Your task to perform on an android device: turn on priority inbox in the gmail app Image 0: 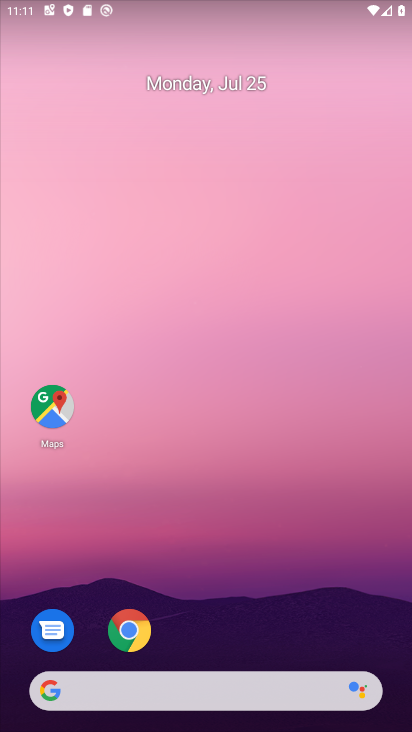
Step 0: press home button
Your task to perform on an android device: turn on priority inbox in the gmail app Image 1: 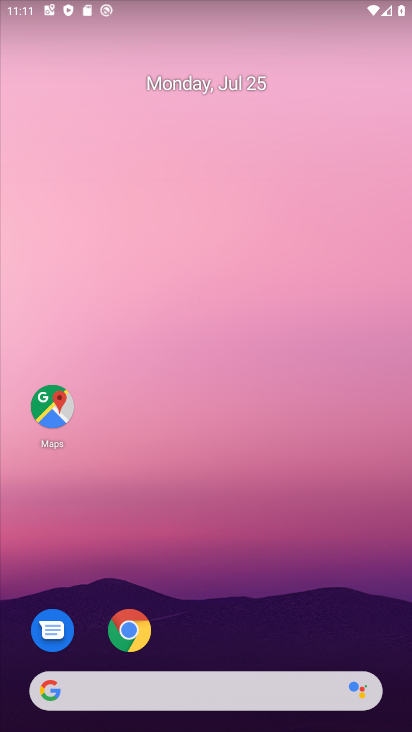
Step 1: drag from (361, 610) to (369, 134)
Your task to perform on an android device: turn on priority inbox in the gmail app Image 2: 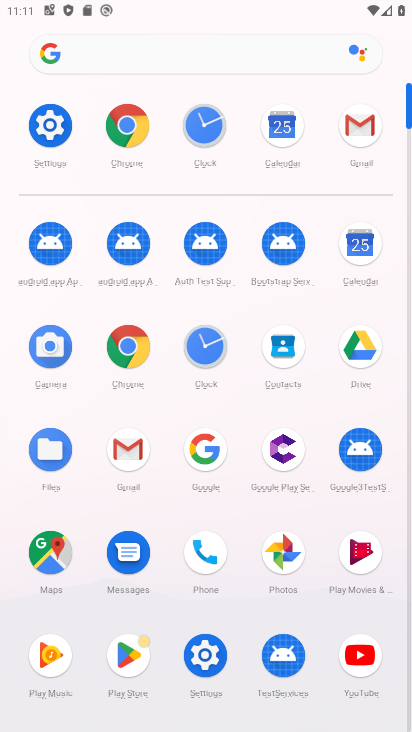
Step 2: click (360, 133)
Your task to perform on an android device: turn on priority inbox in the gmail app Image 3: 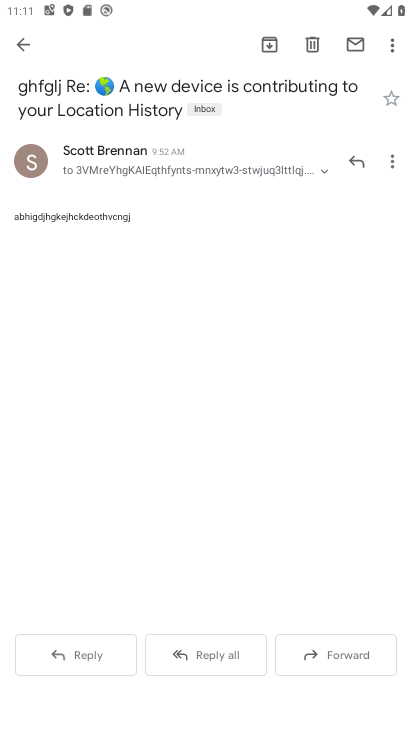
Step 3: press back button
Your task to perform on an android device: turn on priority inbox in the gmail app Image 4: 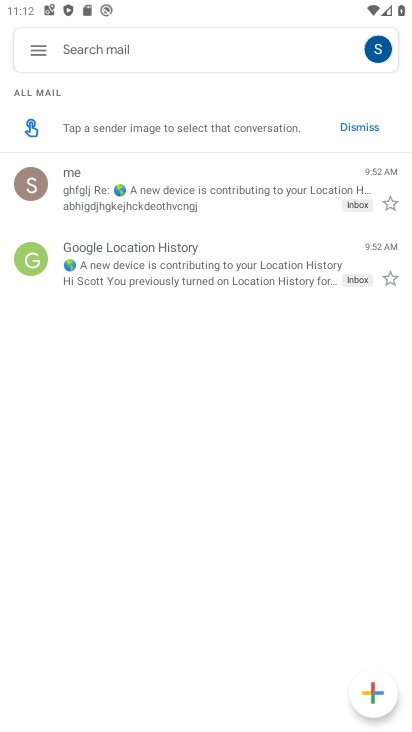
Step 4: click (34, 51)
Your task to perform on an android device: turn on priority inbox in the gmail app Image 5: 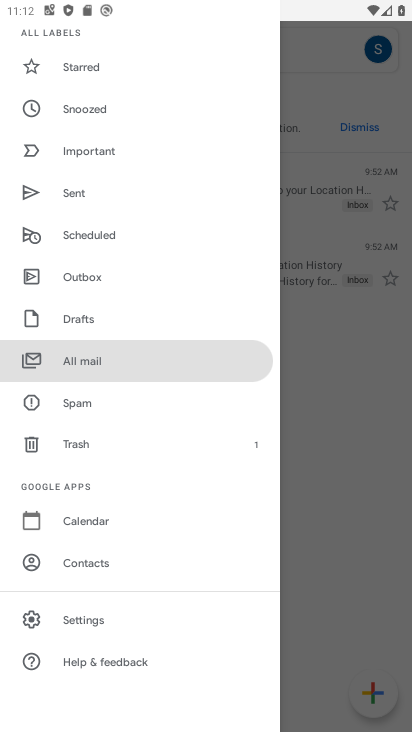
Step 5: click (109, 618)
Your task to perform on an android device: turn on priority inbox in the gmail app Image 6: 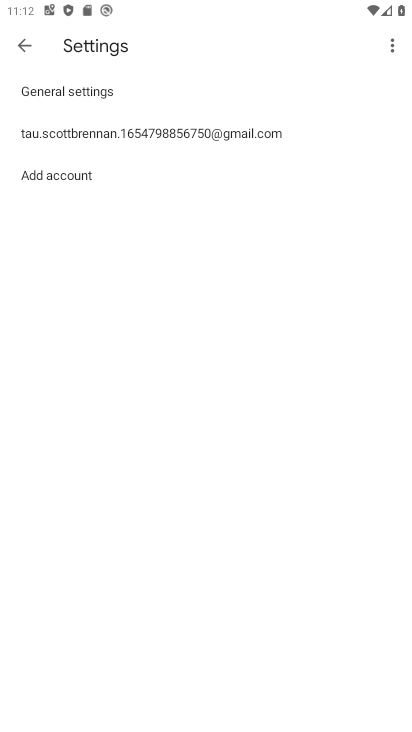
Step 6: click (167, 136)
Your task to perform on an android device: turn on priority inbox in the gmail app Image 7: 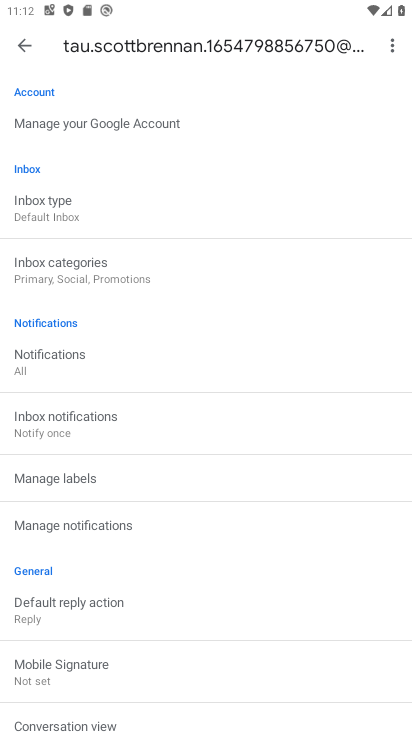
Step 7: drag from (320, 462) to (325, 362)
Your task to perform on an android device: turn on priority inbox in the gmail app Image 8: 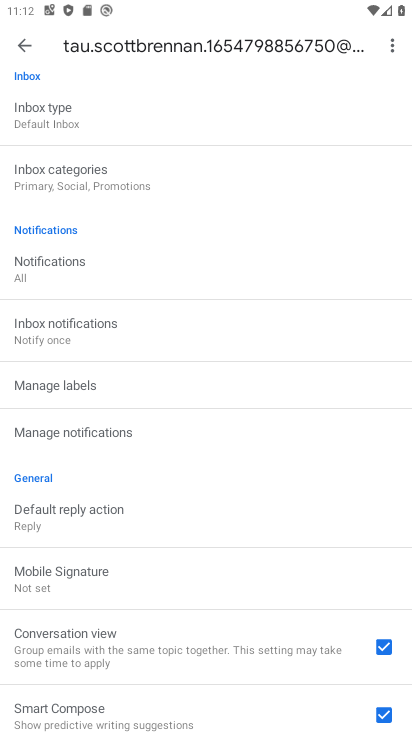
Step 8: drag from (301, 517) to (300, 418)
Your task to perform on an android device: turn on priority inbox in the gmail app Image 9: 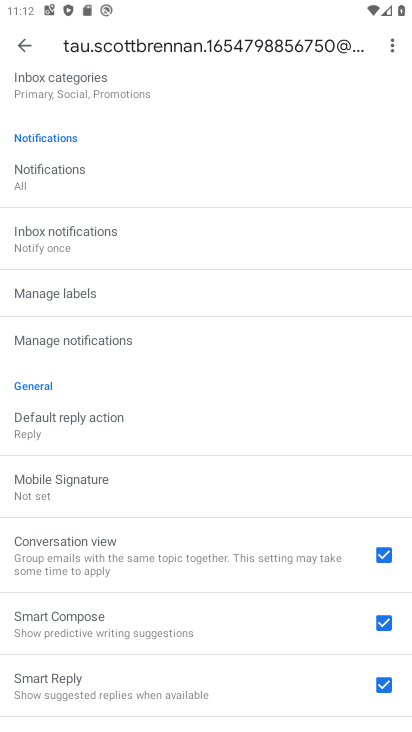
Step 9: drag from (284, 580) to (288, 475)
Your task to perform on an android device: turn on priority inbox in the gmail app Image 10: 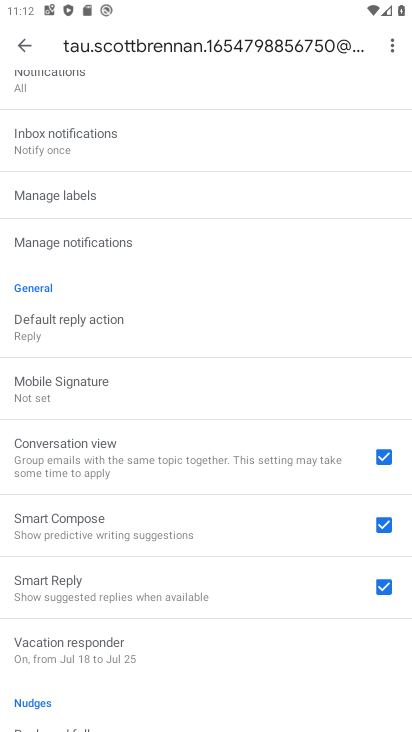
Step 10: drag from (281, 592) to (285, 480)
Your task to perform on an android device: turn on priority inbox in the gmail app Image 11: 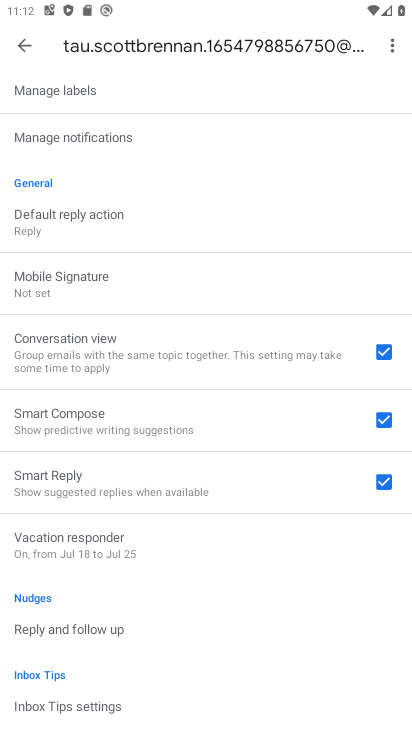
Step 11: drag from (279, 597) to (278, 471)
Your task to perform on an android device: turn on priority inbox in the gmail app Image 12: 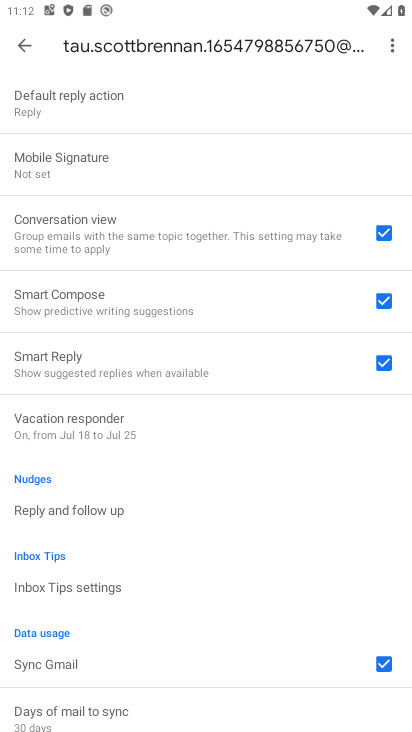
Step 12: drag from (250, 614) to (250, 434)
Your task to perform on an android device: turn on priority inbox in the gmail app Image 13: 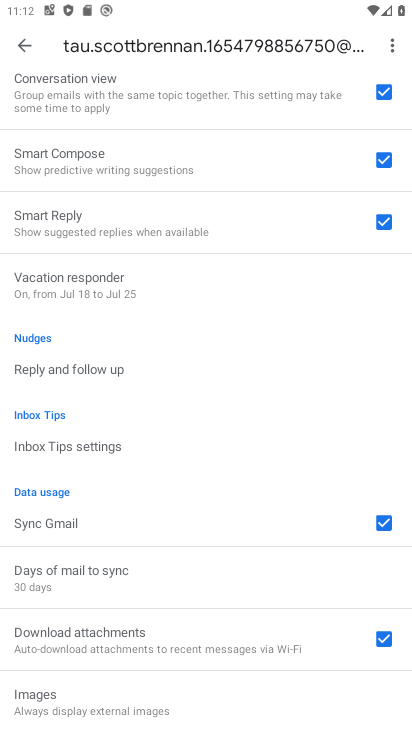
Step 13: drag from (265, 324) to (266, 422)
Your task to perform on an android device: turn on priority inbox in the gmail app Image 14: 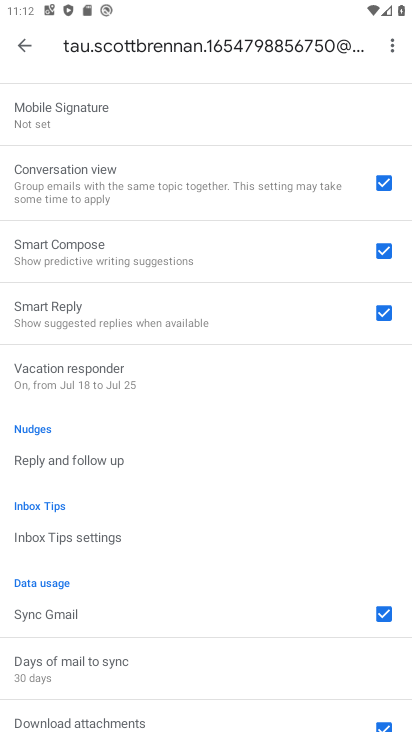
Step 14: drag from (277, 298) to (279, 397)
Your task to perform on an android device: turn on priority inbox in the gmail app Image 15: 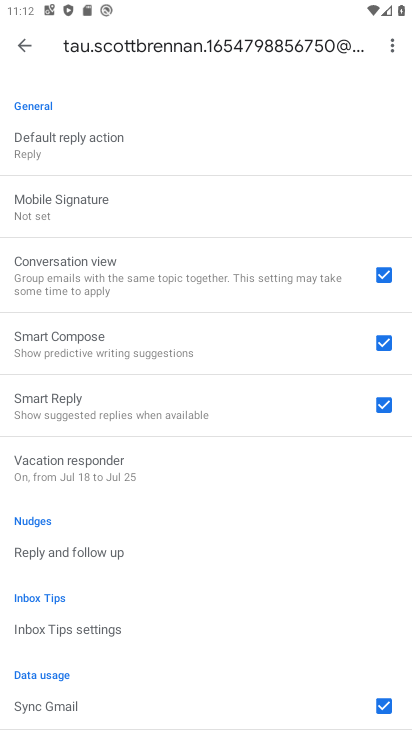
Step 15: drag from (275, 254) to (275, 380)
Your task to perform on an android device: turn on priority inbox in the gmail app Image 16: 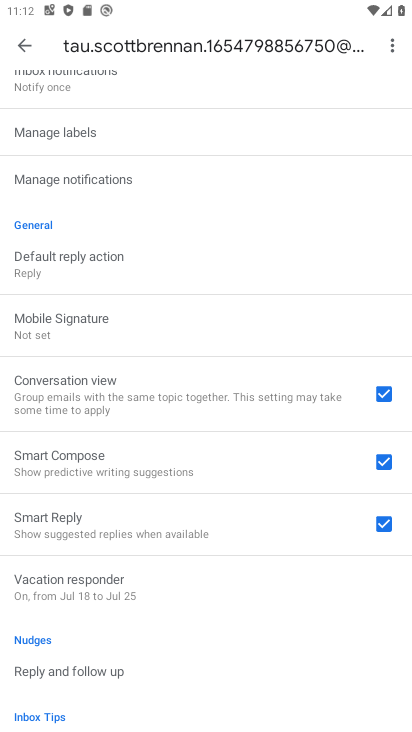
Step 16: drag from (275, 251) to (276, 528)
Your task to perform on an android device: turn on priority inbox in the gmail app Image 17: 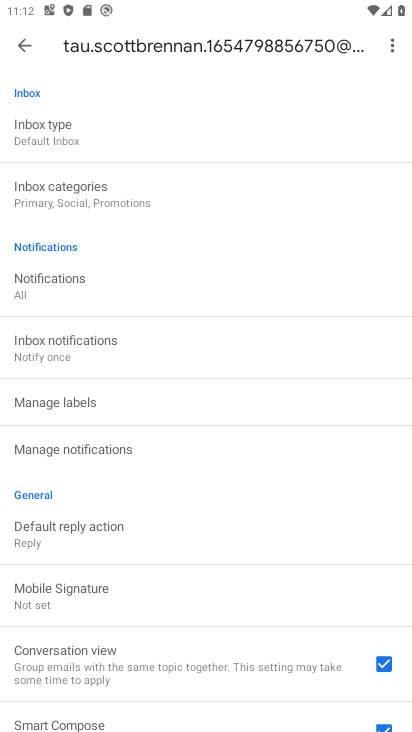
Step 17: drag from (261, 239) to (258, 392)
Your task to perform on an android device: turn on priority inbox in the gmail app Image 18: 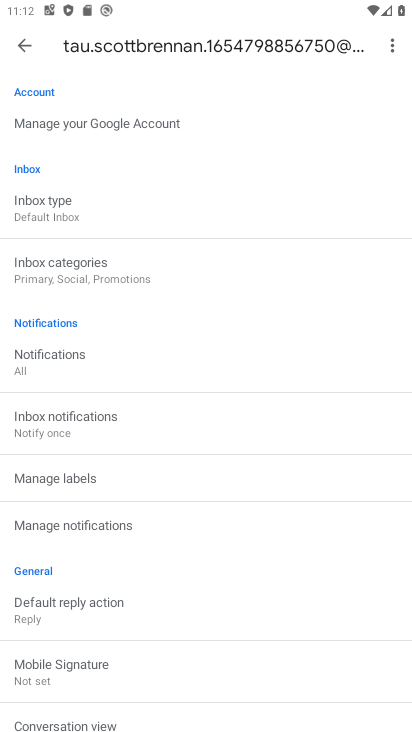
Step 18: click (95, 199)
Your task to perform on an android device: turn on priority inbox in the gmail app Image 19: 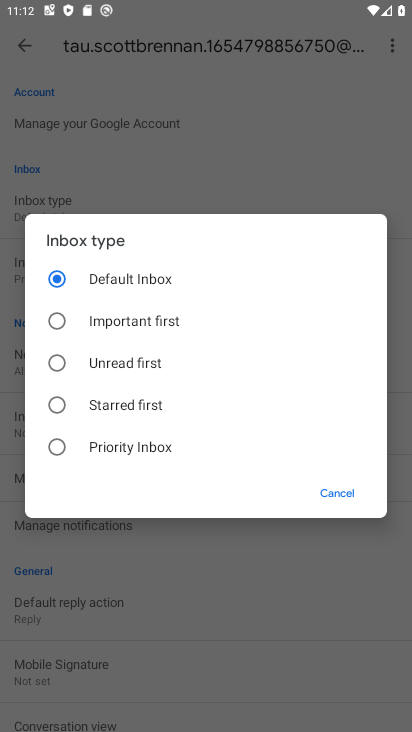
Step 19: click (137, 459)
Your task to perform on an android device: turn on priority inbox in the gmail app Image 20: 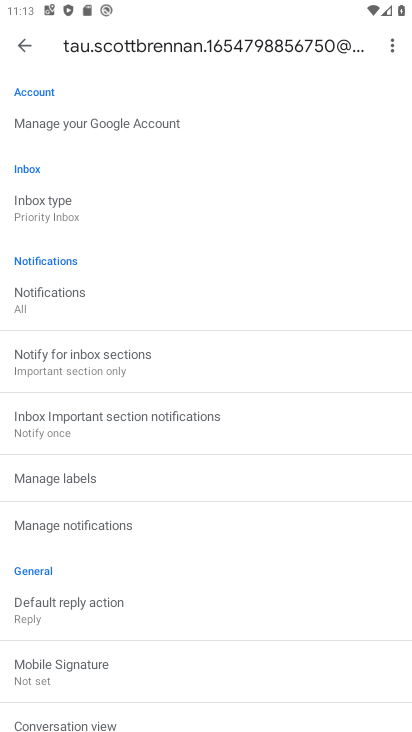
Step 20: task complete